Your task to perform on an android device: delete browsing data in the chrome app Image 0: 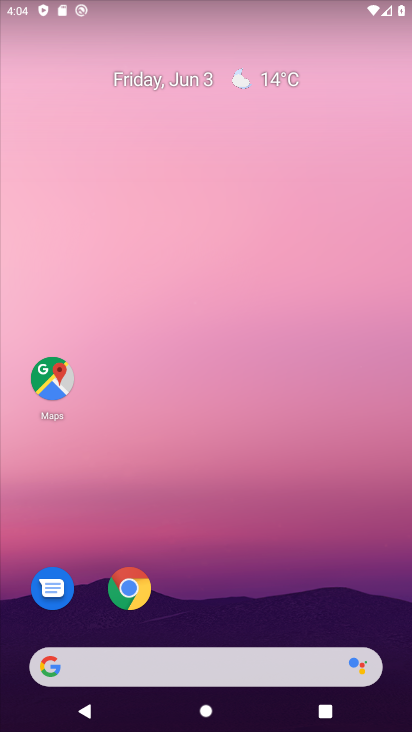
Step 0: click (130, 586)
Your task to perform on an android device: delete browsing data in the chrome app Image 1: 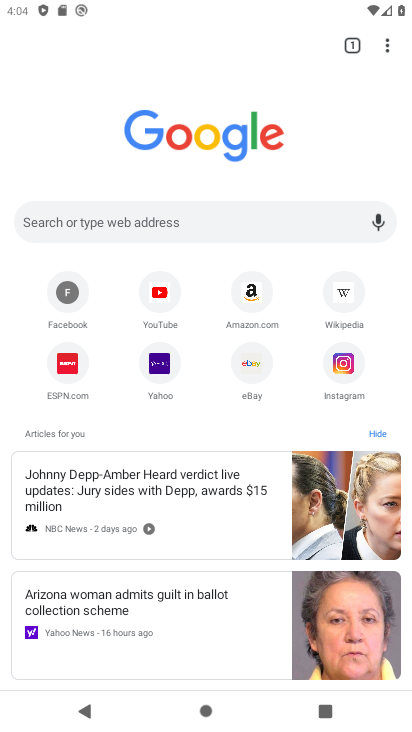
Step 1: click (388, 40)
Your task to perform on an android device: delete browsing data in the chrome app Image 2: 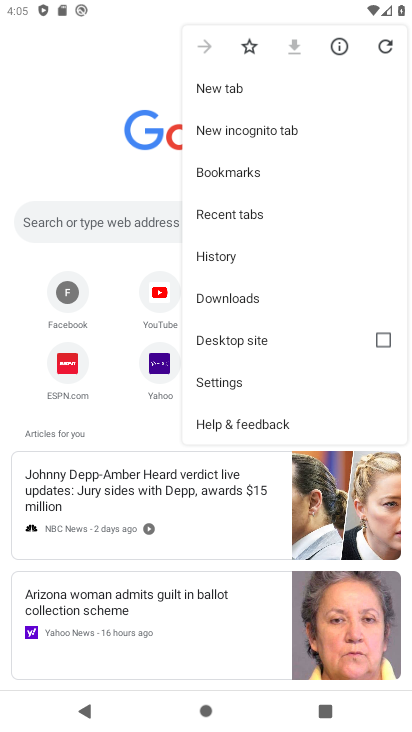
Step 2: click (232, 249)
Your task to perform on an android device: delete browsing data in the chrome app Image 3: 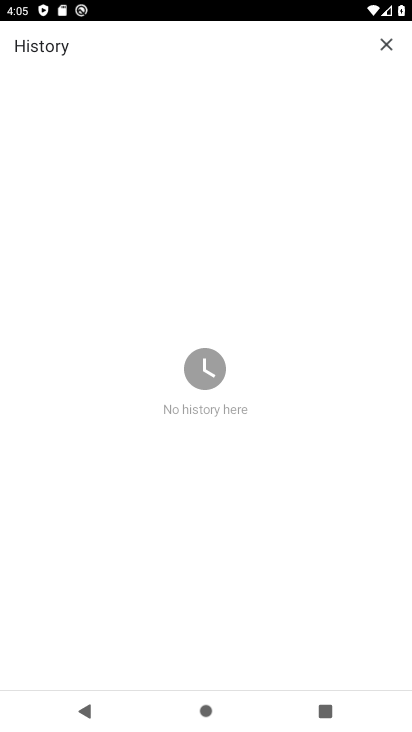
Step 3: task complete